Your task to perform on an android device: Show me recent news Image 0: 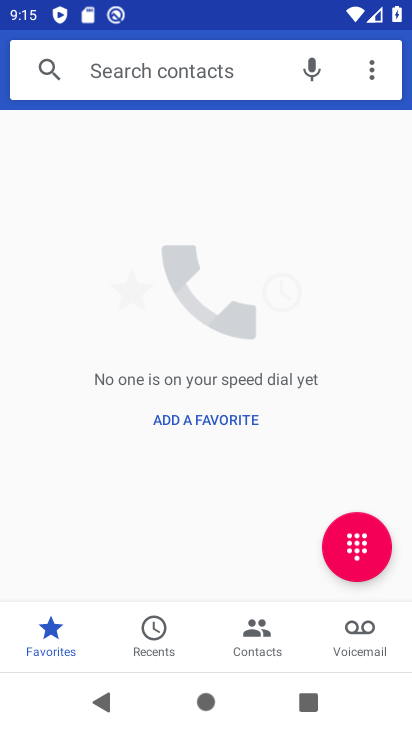
Step 0: press home button
Your task to perform on an android device: Show me recent news Image 1: 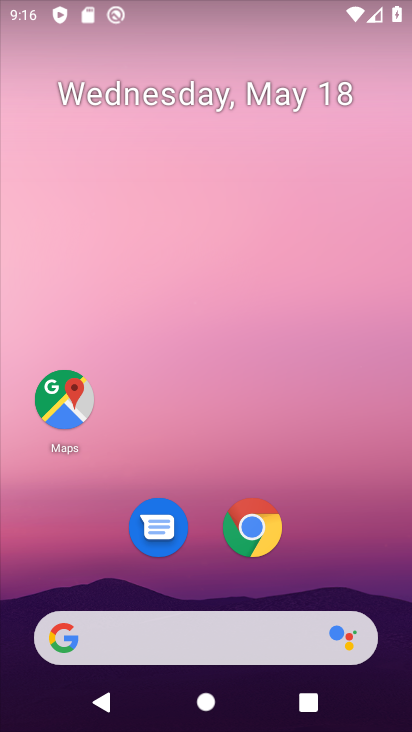
Step 1: click (127, 636)
Your task to perform on an android device: Show me recent news Image 2: 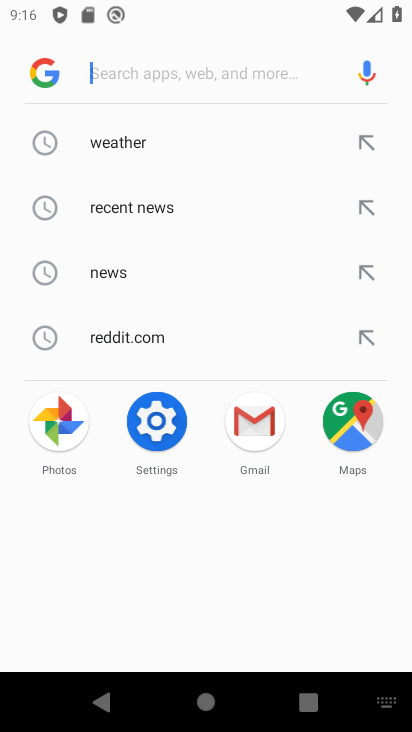
Step 2: click (161, 211)
Your task to perform on an android device: Show me recent news Image 3: 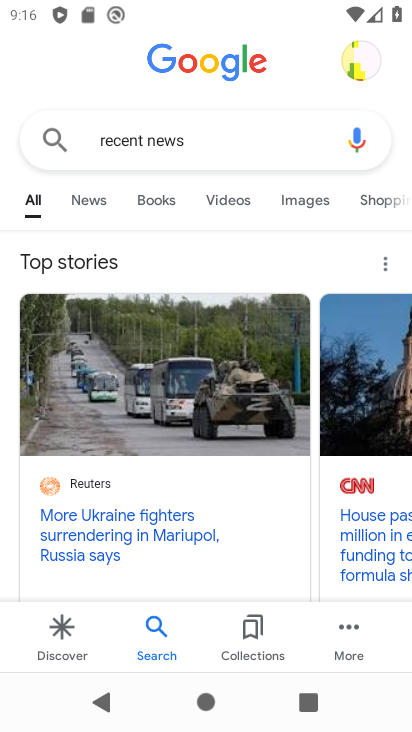
Step 3: click (92, 199)
Your task to perform on an android device: Show me recent news Image 4: 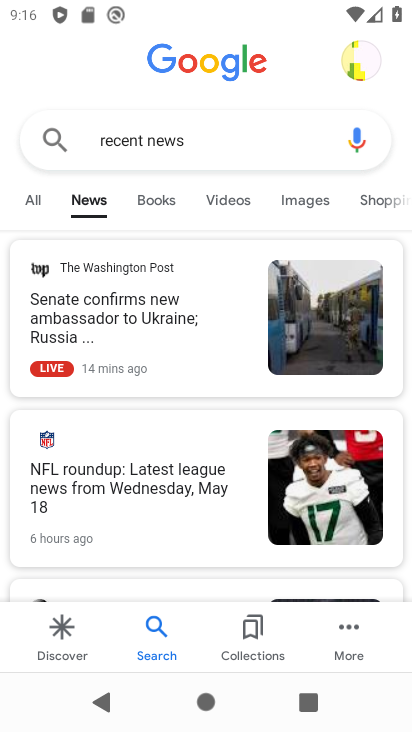
Step 4: task complete